Your task to perform on an android device: Check the weather Image 0: 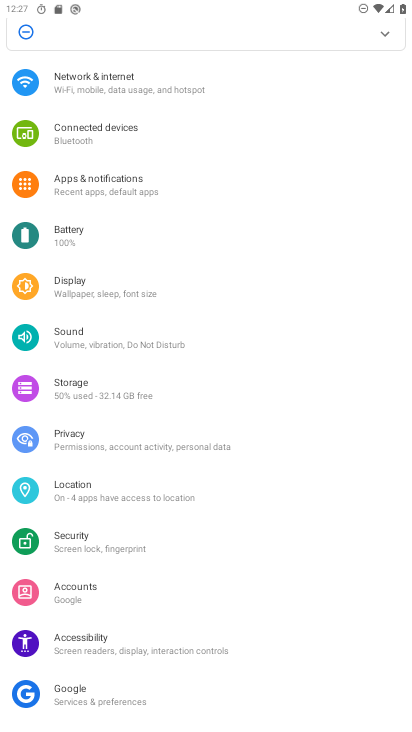
Step 0: press home button
Your task to perform on an android device: Check the weather Image 1: 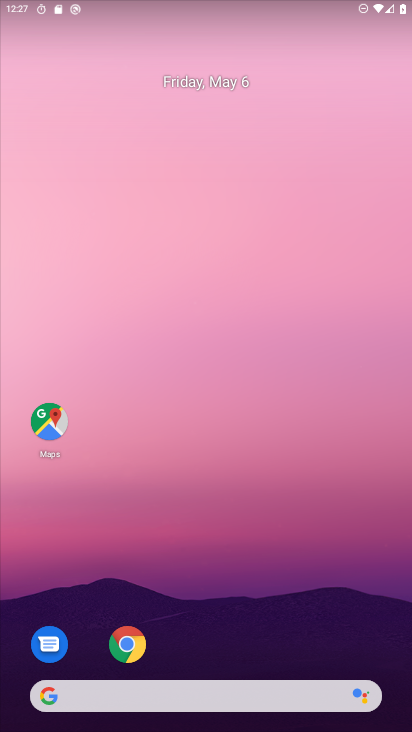
Step 1: drag from (336, 627) to (321, 166)
Your task to perform on an android device: Check the weather Image 2: 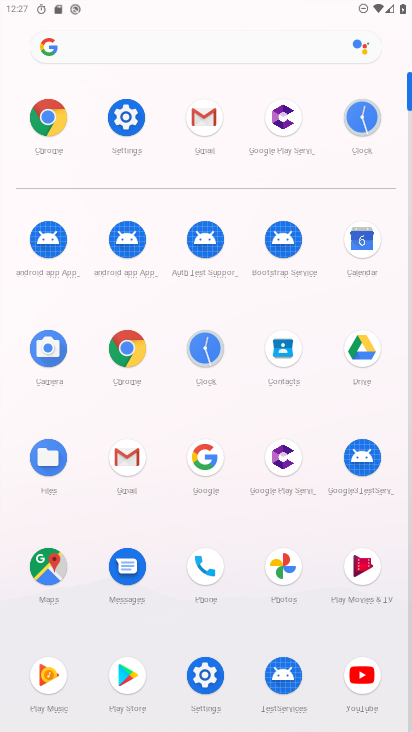
Step 2: click (44, 128)
Your task to perform on an android device: Check the weather Image 3: 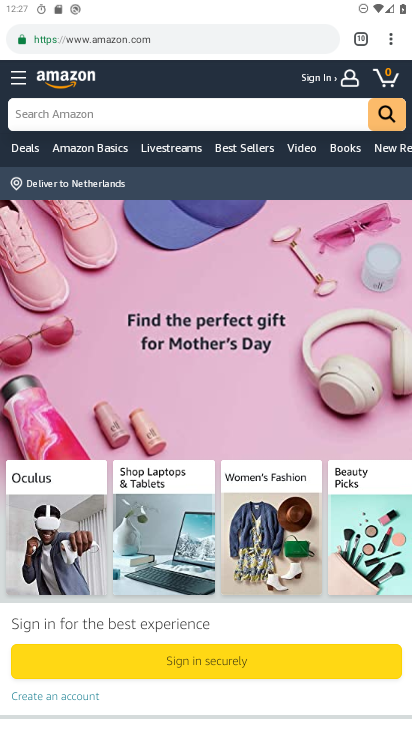
Step 3: click (100, 37)
Your task to perform on an android device: Check the weather Image 4: 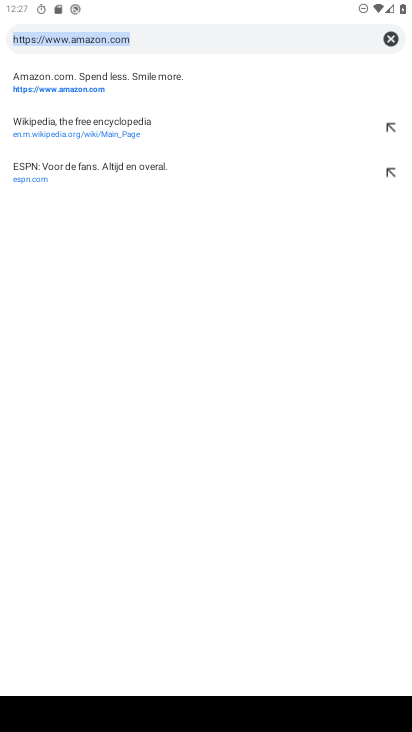
Step 4: click (384, 44)
Your task to perform on an android device: Check the weather Image 5: 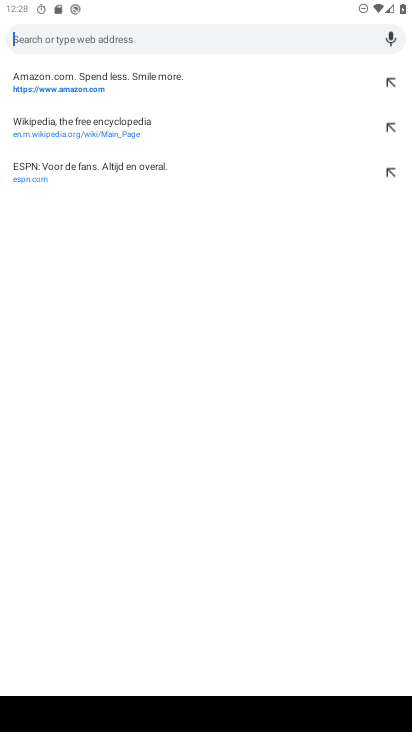
Step 5: type "check the weather "
Your task to perform on an android device: Check the weather Image 6: 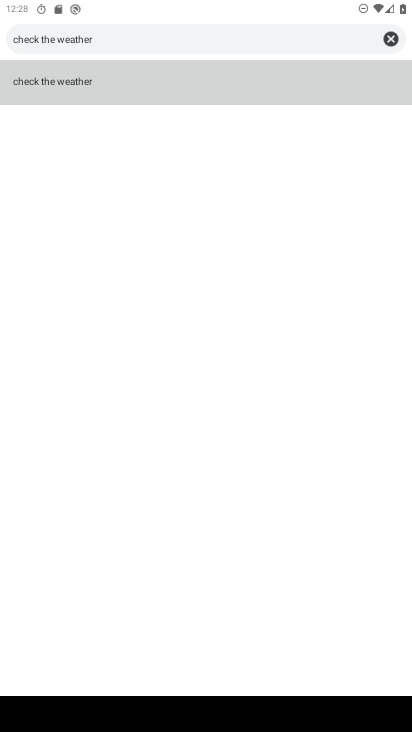
Step 6: click (50, 80)
Your task to perform on an android device: Check the weather Image 7: 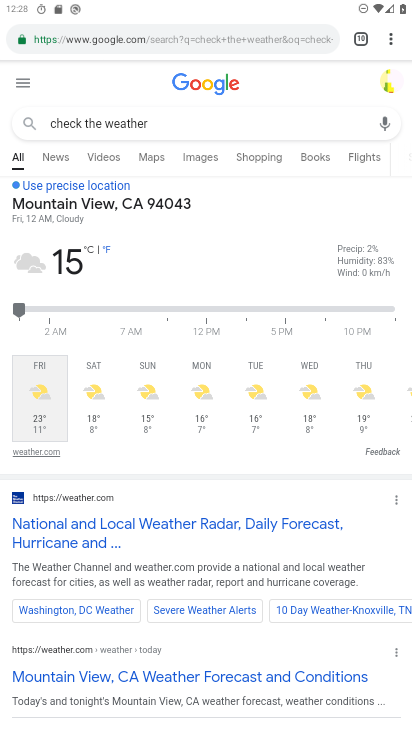
Step 7: task complete